Your task to perform on an android device: toggle wifi Image 0: 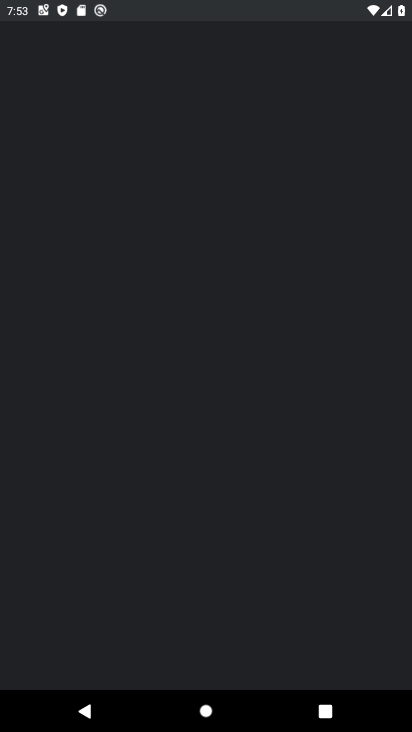
Step 0: drag from (376, 623) to (340, 454)
Your task to perform on an android device: toggle wifi Image 1: 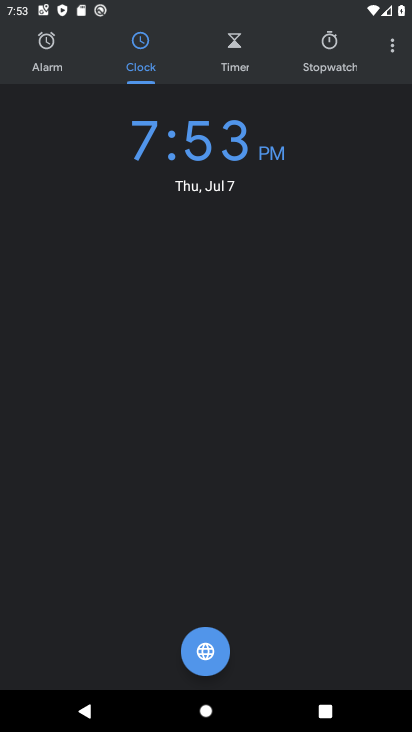
Step 1: press home button
Your task to perform on an android device: toggle wifi Image 2: 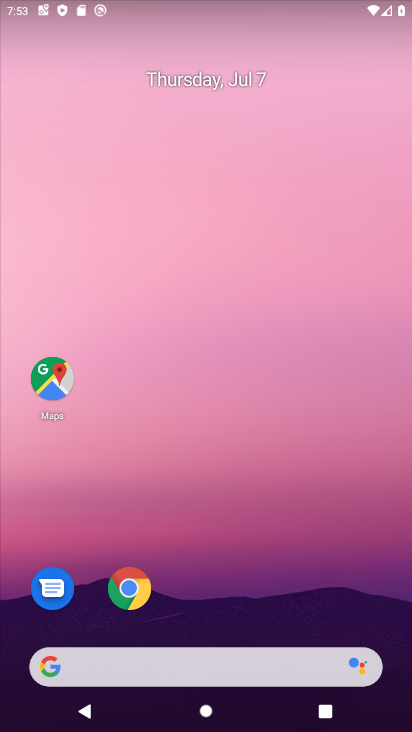
Step 2: drag from (348, 583) to (296, 217)
Your task to perform on an android device: toggle wifi Image 3: 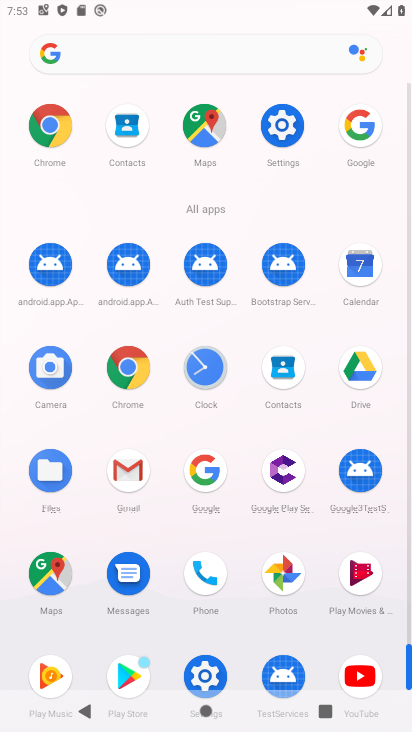
Step 3: click (278, 132)
Your task to perform on an android device: toggle wifi Image 4: 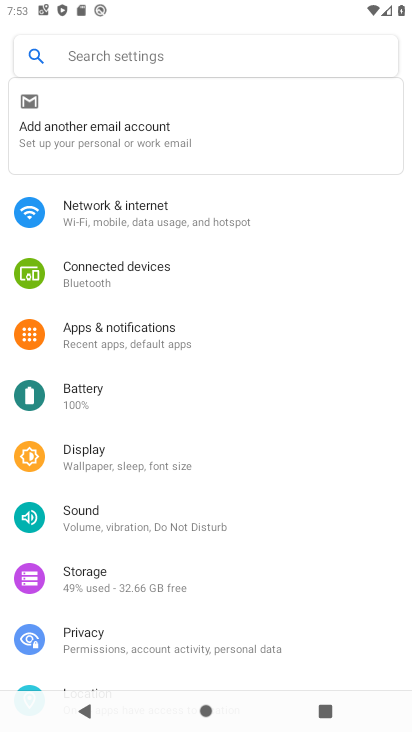
Step 4: click (123, 214)
Your task to perform on an android device: toggle wifi Image 5: 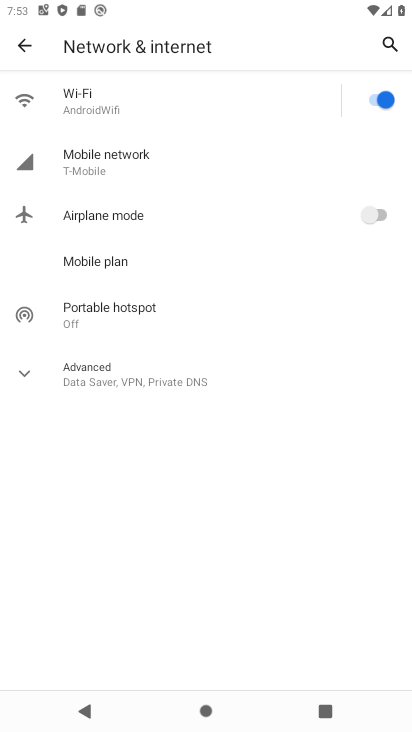
Step 5: click (372, 104)
Your task to perform on an android device: toggle wifi Image 6: 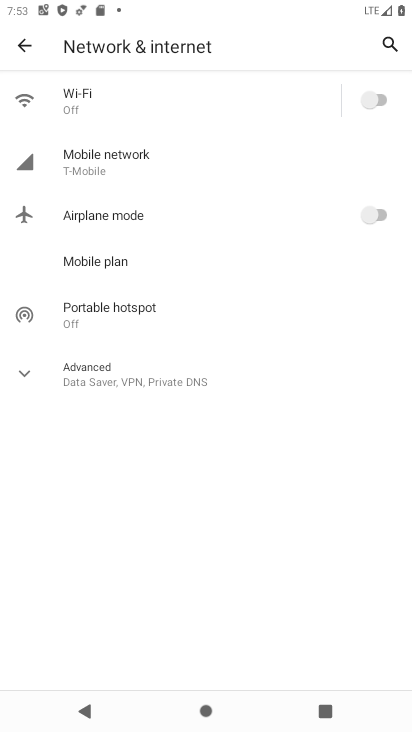
Step 6: task complete